Your task to perform on an android device: Open settings Image 0: 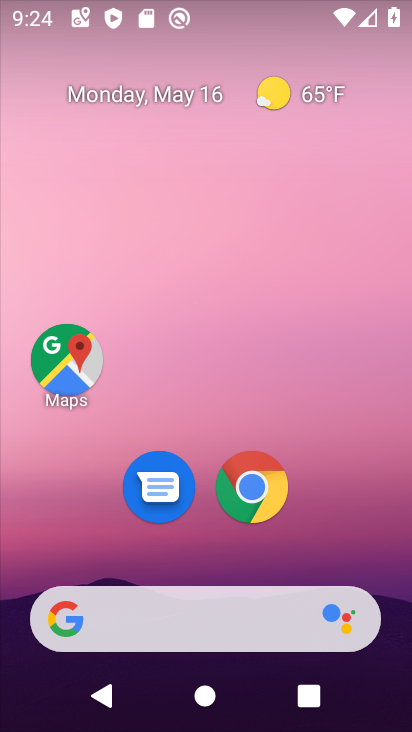
Step 0: drag from (375, 524) to (354, 96)
Your task to perform on an android device: Open settings Image 1: 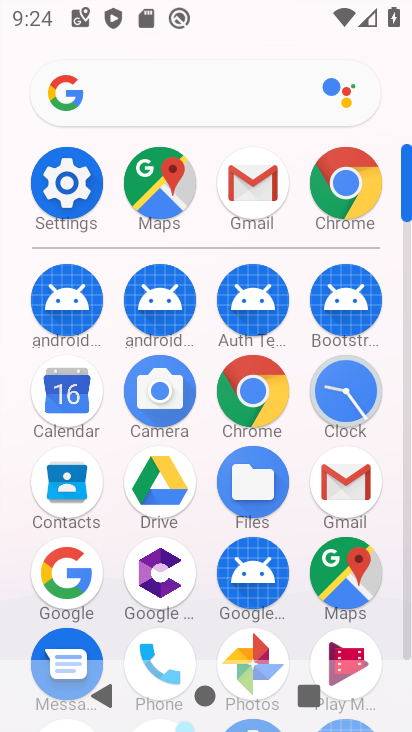
Step 1: click (65, 200)
Your task to perform on an android device: Open settings Image 2: 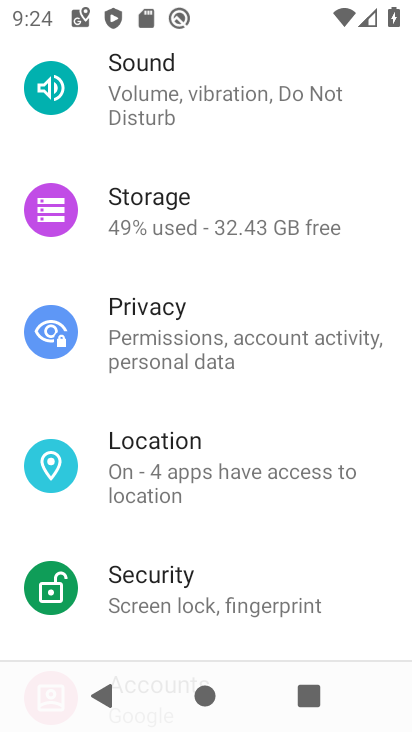
Step 2: task complete